Your task to perform on an android device: toggle priority inbox in the gmail app Image 0: 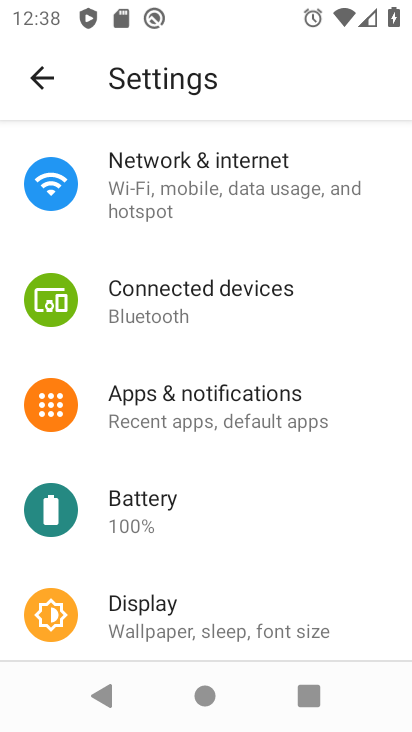
Step 0: press home button
Your task to perform on an android device: toggle priority inbox in the gmail app Image 1: 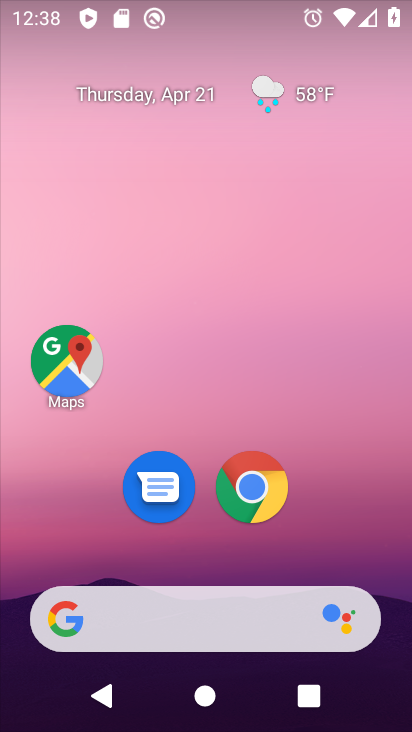
Step 1: drag from (394, 575) to (373, 0)
Your task to perform on an android device: toggle priority inbox in the gmail app Image 2: 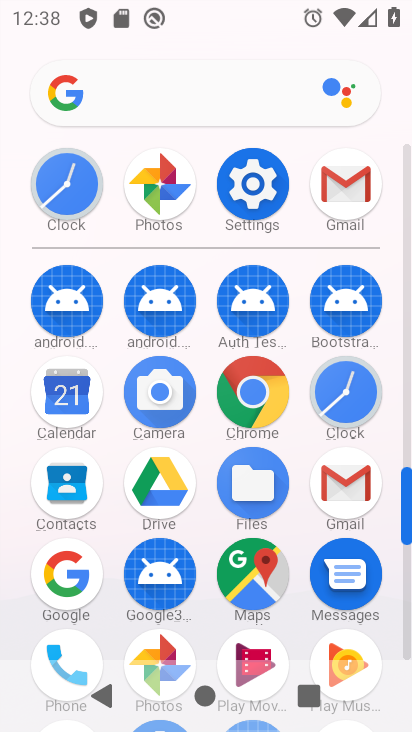
Step 2: click (345, 192)
Your task to perform on an android device: toggle priority inbox in the gmail app Image 3: 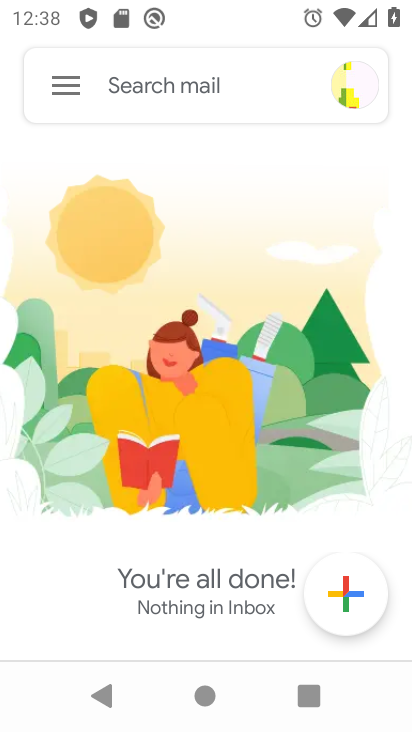
Step 3: click (70, 89)
Your task to perform on an android device: toggle priority inbox in the gmail app Image 4: 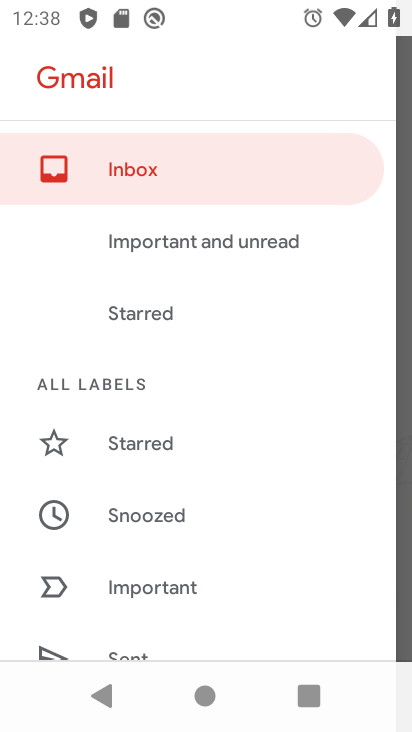
Step 4: drag from (299, 620) to (271, 108)
Your task to perform on an android device: toggle priority inbox in the gmail app Image 5: 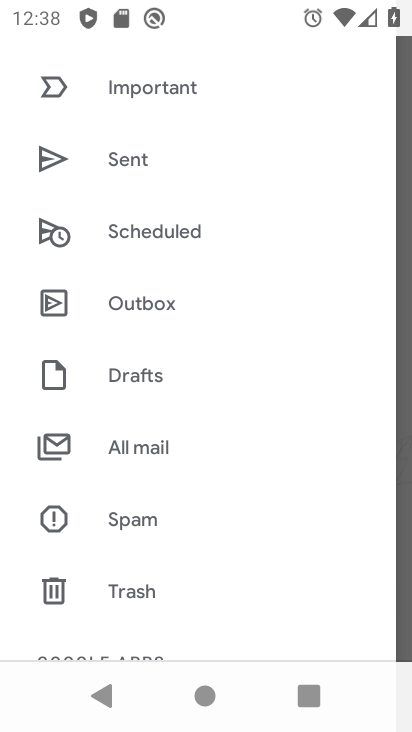
Step 5: drag from (186, 476) to (192, 161)
Your task to perform on an android device: toggle priority inbox in the gmail app Image 6: 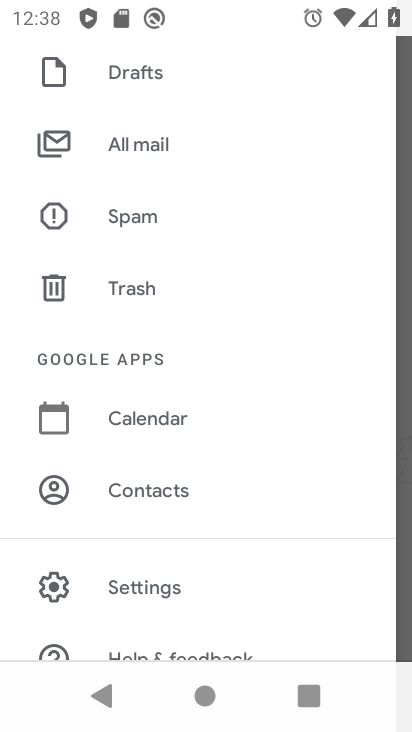
Step 6: click (135, 585)
Your task to perform on an android device: toggle priority inbox in the gmail app Image 7: 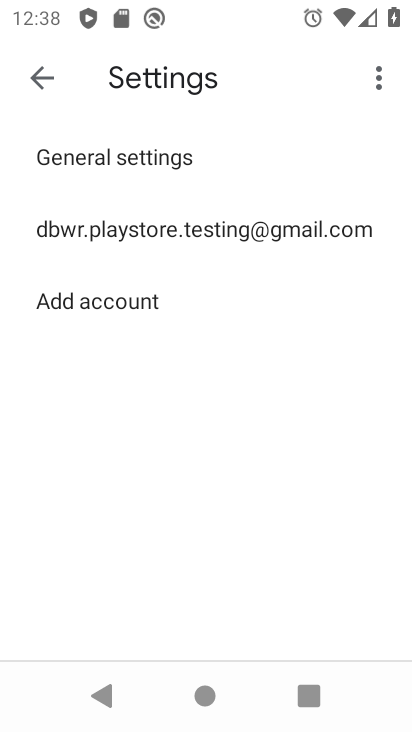
Step 7: click (126, 234)
Your task to perform on an android device: toggle priority inbox in the gmail app Image 8: 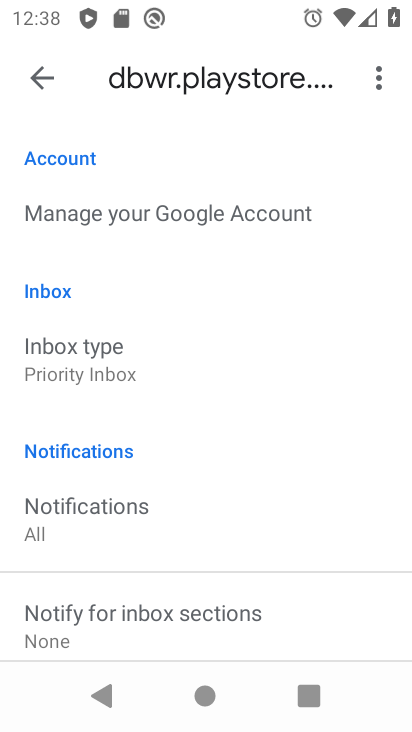
Step 8: click (76, 369)
Your task to perform on an android device: toggle priority inbox in the gmail app Image 9: 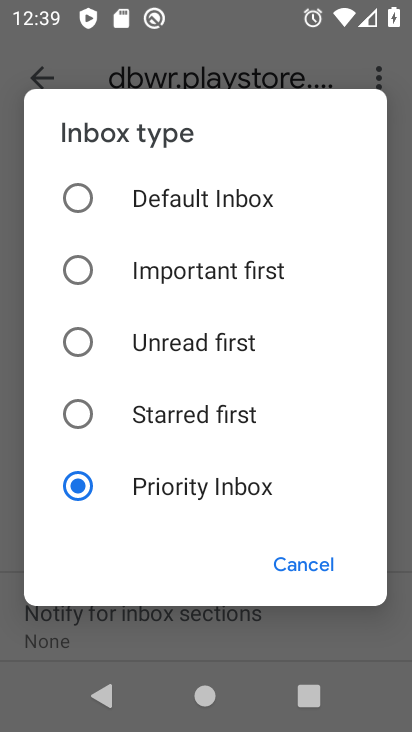
Step 9: click (83, 203)
Your task to perform on an android device: toggle priority inbox in the gmail app Image 10: 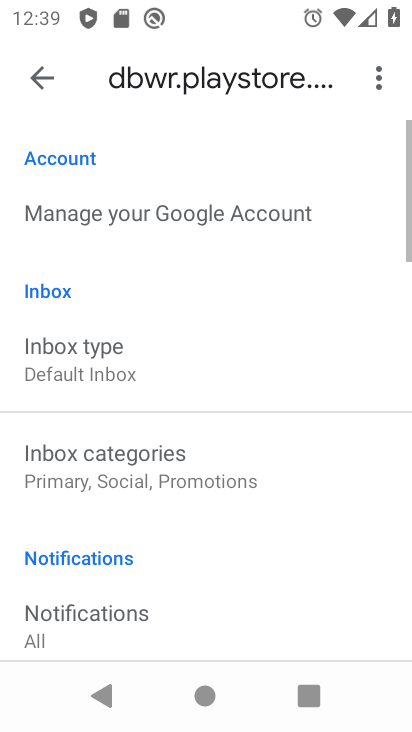
Step 10: task complete